Your task to perform on an android device: Turn off the flashlight Image 0: 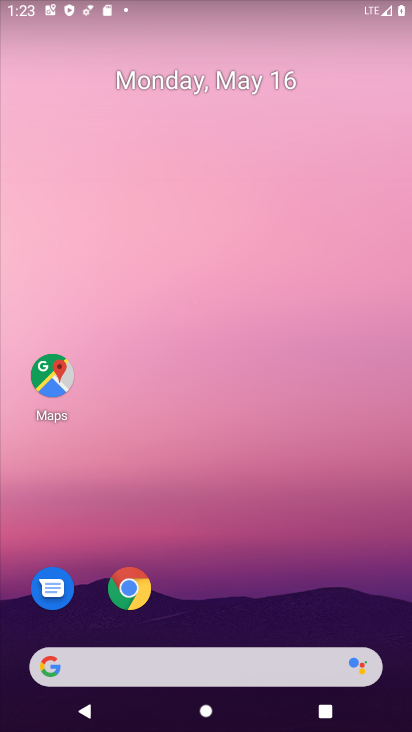
Step 0: drag from (223, 546) to (178, 174)
Your task to perform on an android device: Turn off the flashlight Image 1: 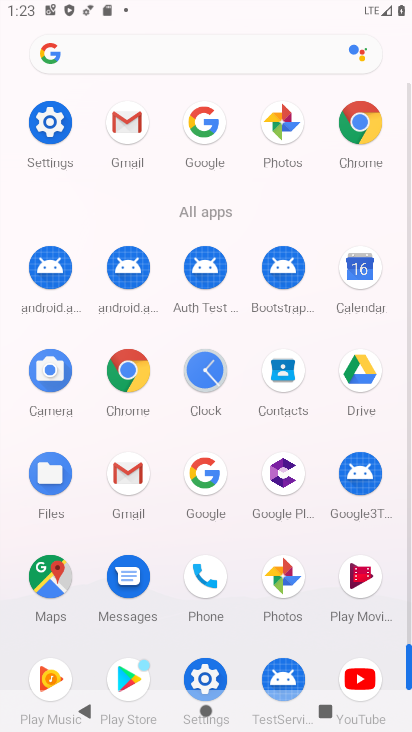
Step 1: drag from (245, 581) to (256, 353)
Your task to perform on an android device: Turn off the flashlight Image 2: 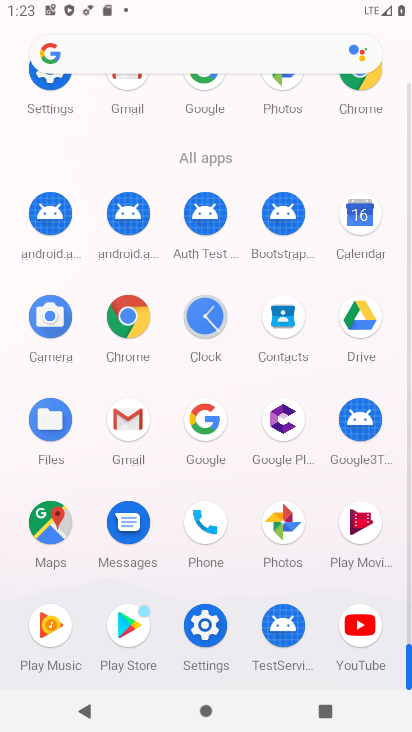
Step 2: click (204, 623)
Your task to perform on an android device: Turn off the flashlight Image 3: 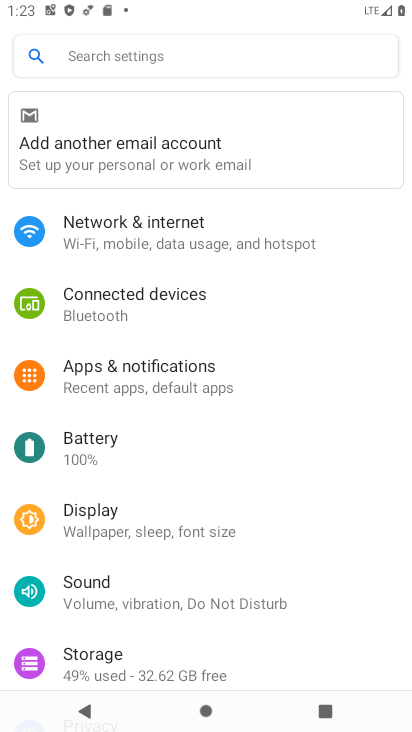
Step 3: drag from (176, 454) to (217, 377)
Your task to perform on an android device: Turn off the flashlight Image 4: 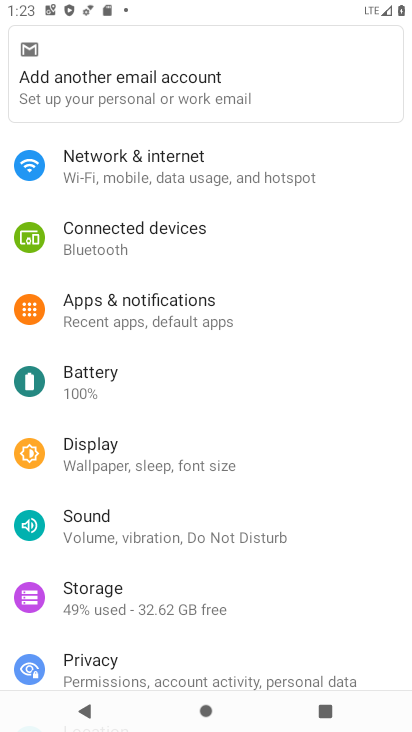
Step 4: drag from (140, 424) to (180, 363)
Your task to perform on an android device: Turn off the flashlight Image 5: 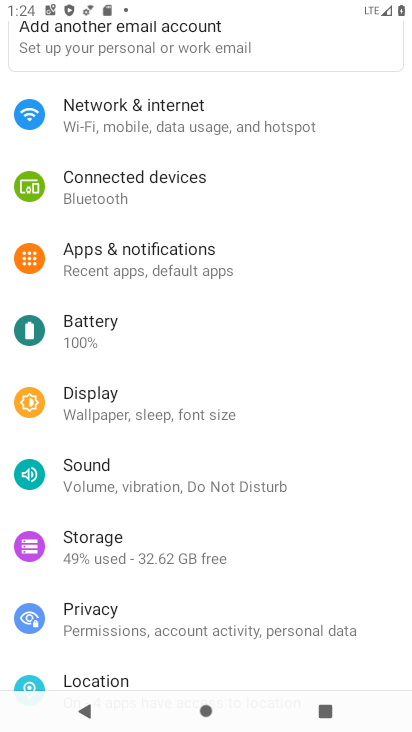
Step 5: click (150, 402)
Your task to perform on an android device: Turn off the flashlight Image 6: 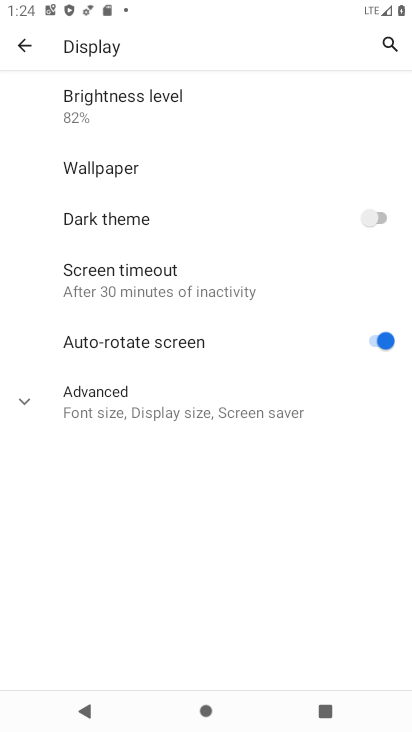
Step 6: click (170, 282)
Your task to perform on an android device: Turn off the flashlight Image 7: 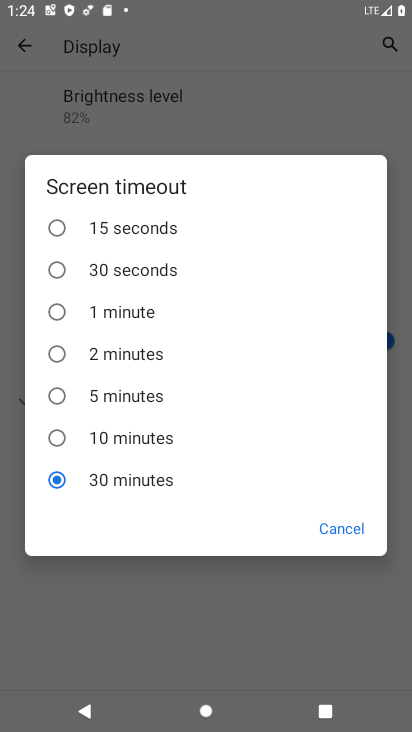
Step 7: click (357, 518)
Your task to perform on an android device: Turn off the flashlight Image 8: 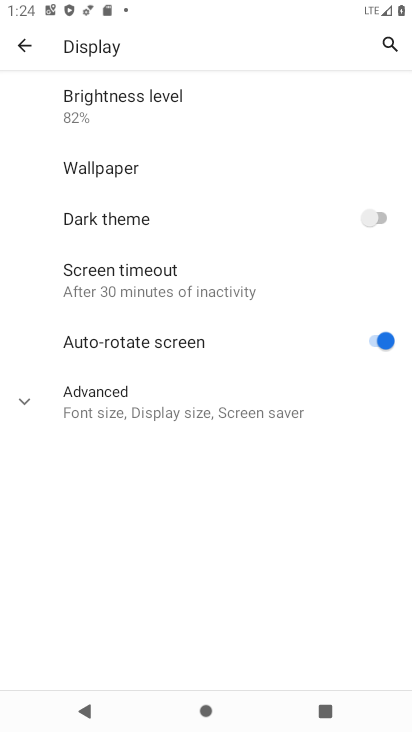
Step 8: click (129, 421)
Your task to perform on an android device: Turn off the flashlight Image 9: 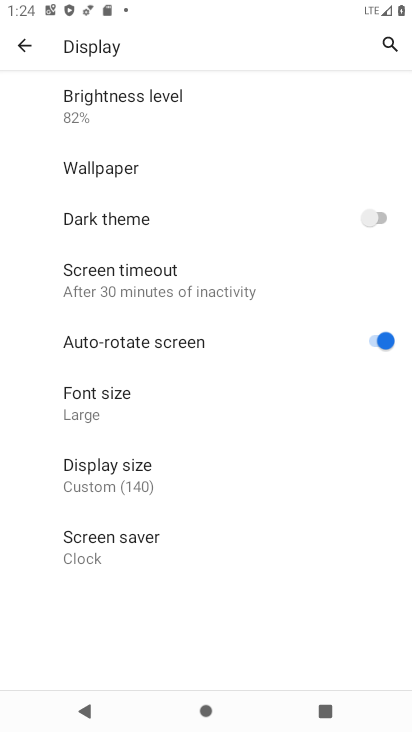
Step 9: task complete